Your task to perform on an android device: Open Chrome and go to the settings page Image 0: 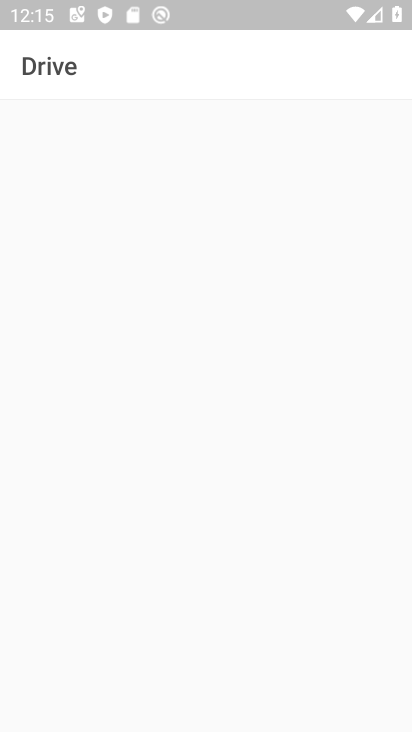
Step 0: press home button
Your task to perform on an android device: Open Chrome and go to the settings page Image 1: 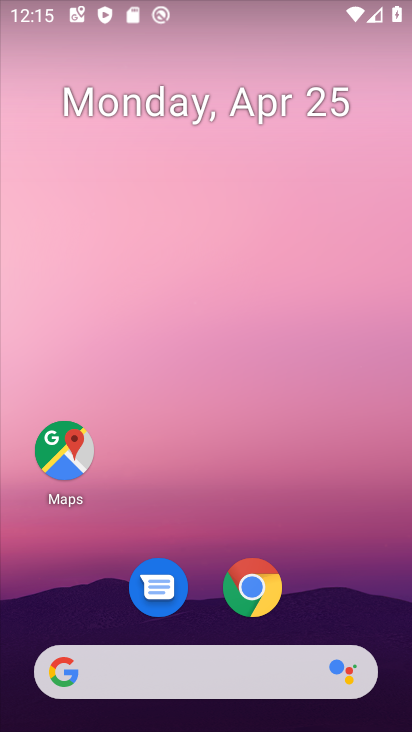
Step 1: drag from (319, 607) to (210, 65)
Your task to perform on an android device: Open Chrome and go to the settings page Image 2: 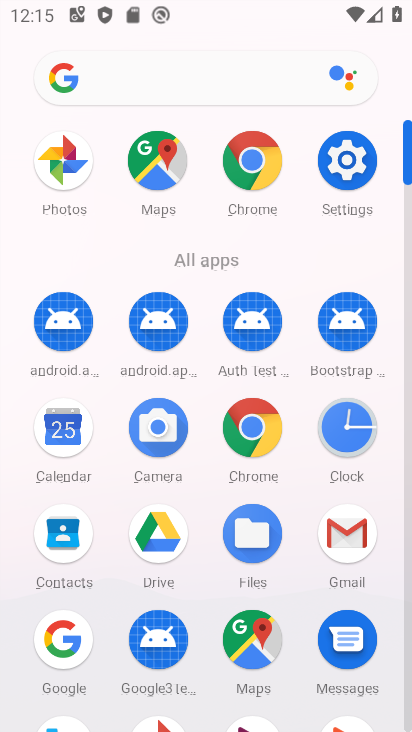
Step 2: click (357, 147)
Your task to perform on an android device: Open Chrome and go to the settings page Image 3: 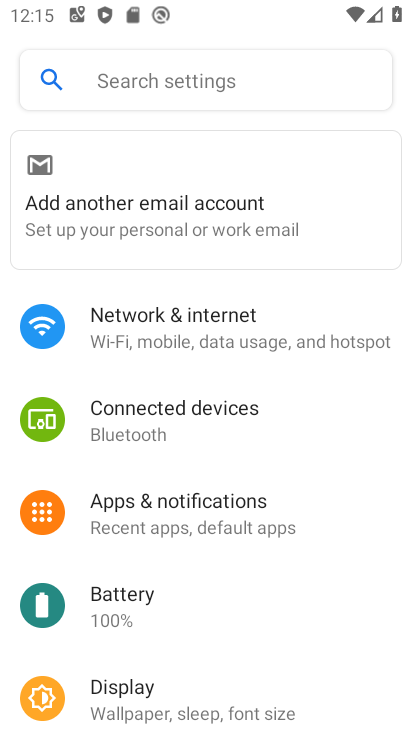
Step 3: press home button
Your task to perform on an android device: Open Chrome and go to the settings page Image 4: 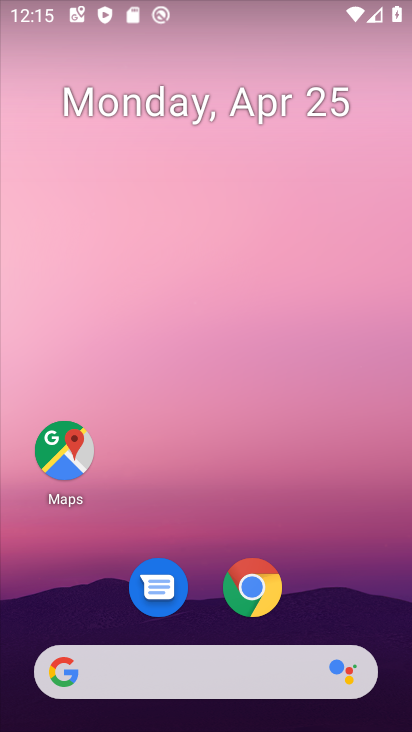
Step 4: click (272, 586)
Your task to perform on an android device: Open Chrome and go to the settings page Image 5: 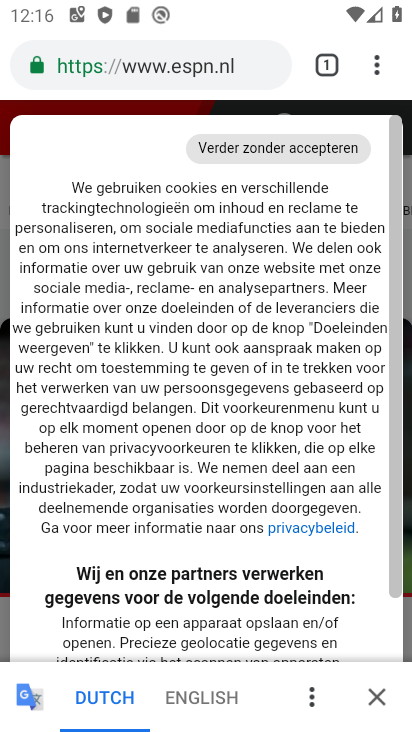
Step 5: click (372, 89)
Your task to perform on an android device: Open Chrome and go to the settings page Image 6: 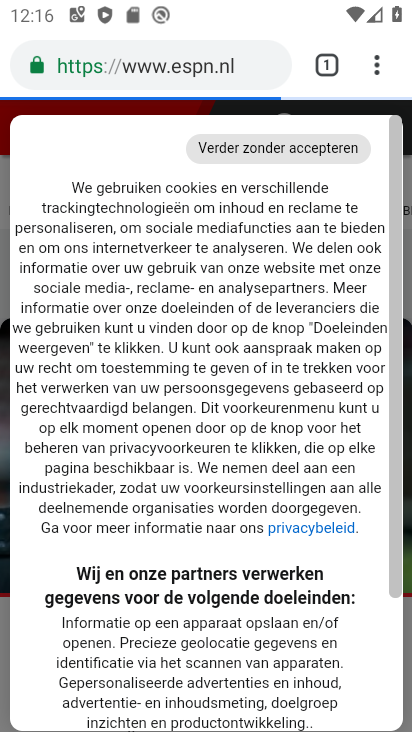
Step 6: task complete